Your task to perform on an android device: Go to display settings Image 0: 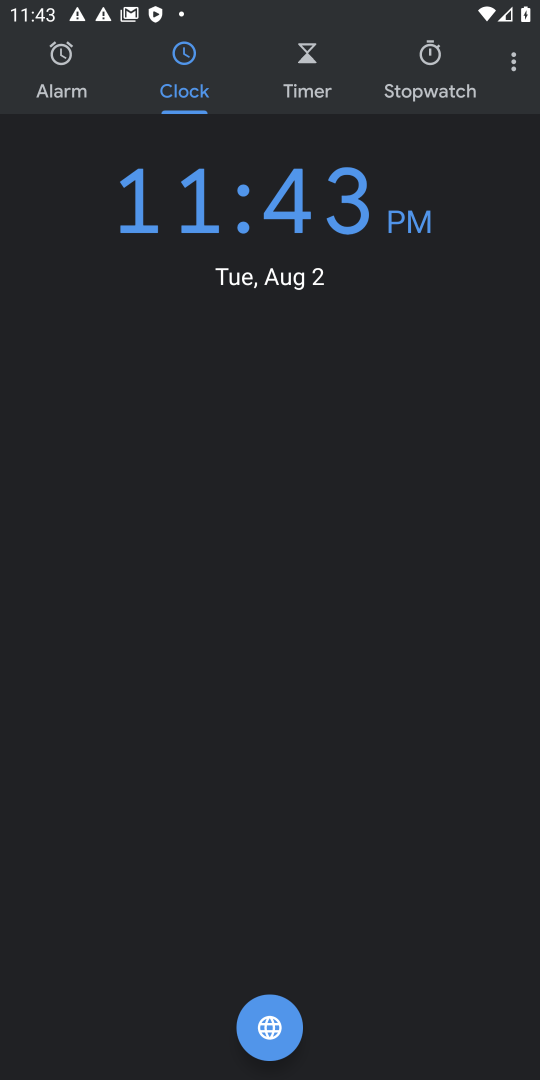
Step 0: press home button
Your task to perform on an android device: Go to display settings Image 1: 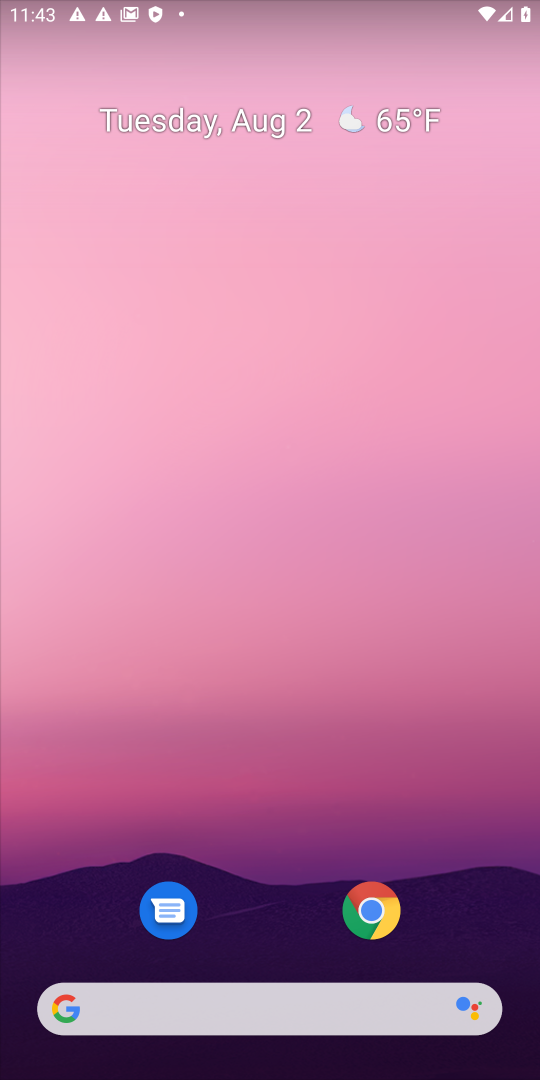
Step 1: drag from (331, 796) to (390, 4)
Your task to perform on an android device: Go to display settings Image 2: 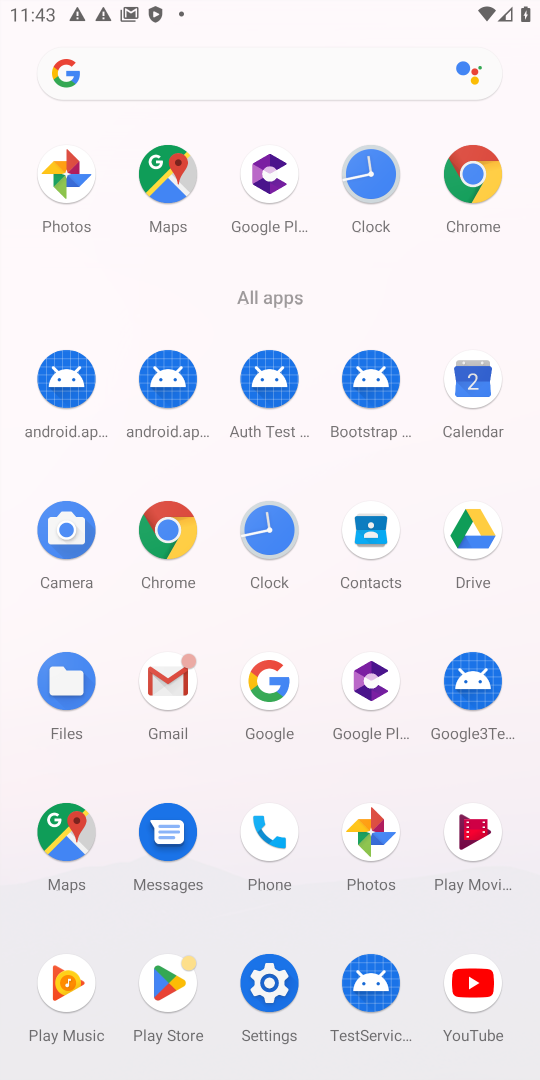
Step 2: click (257, 986)
Your task to perform on an android device: Go to display settings Image 3: 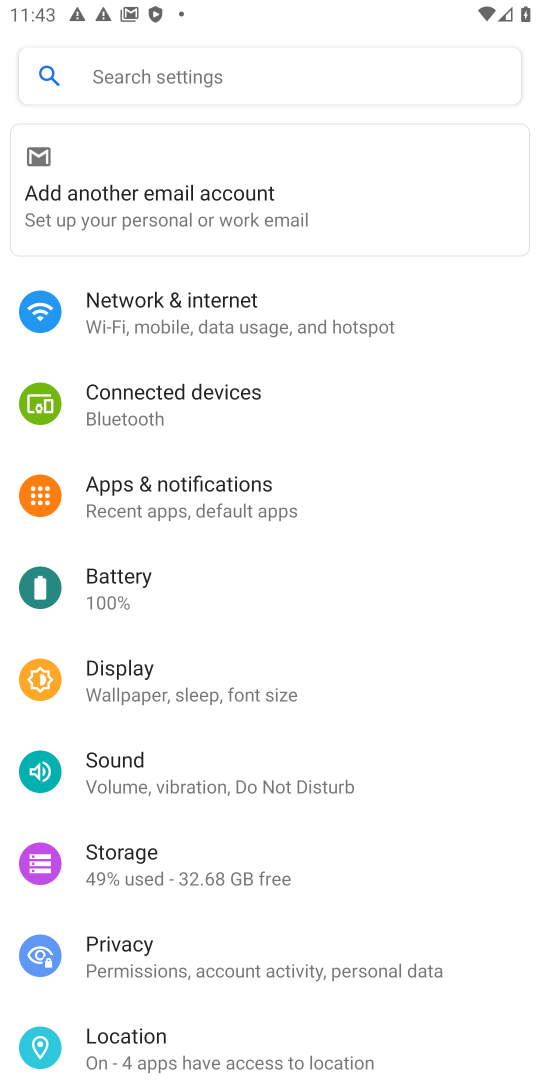
Step 3: click (114, 692)
Your task to perform on an android device: Go to display settings Image 4: 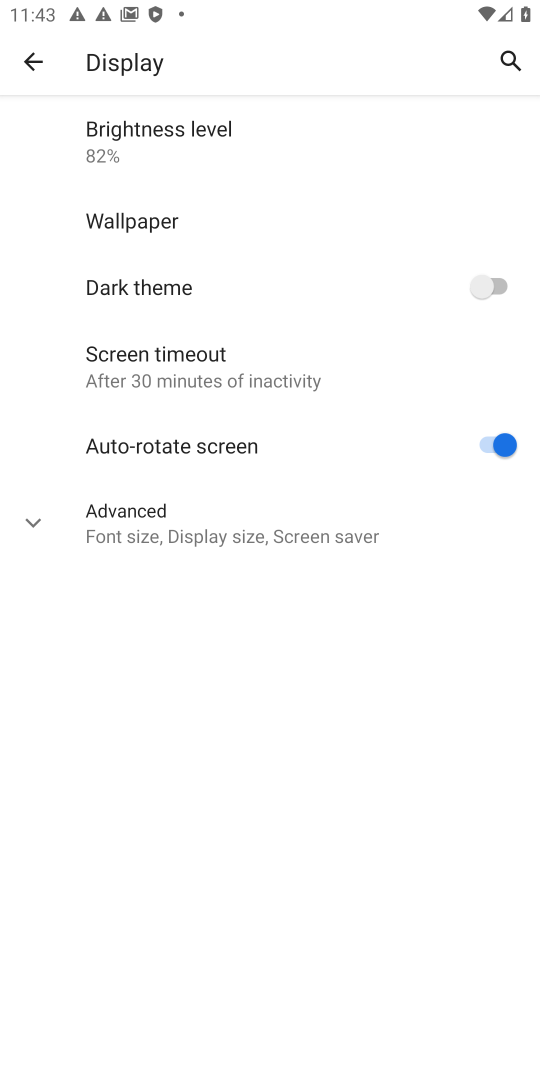
Step 4: task complete